Your task to perform on an android device: Turn off the flashlight Image 0: 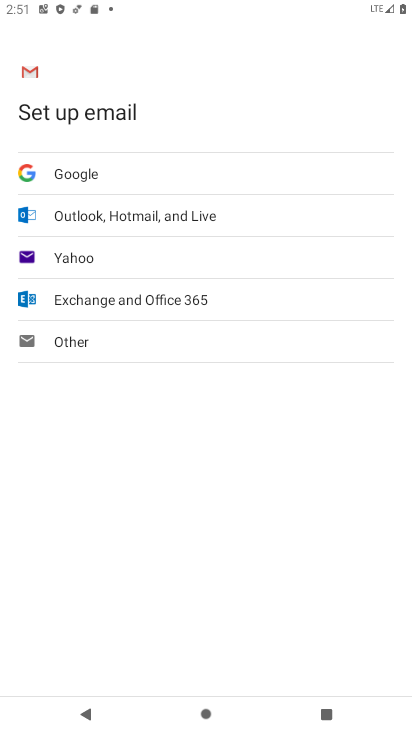
Step 0: press home button
Your task to perform on an android device: Turn off the flashlight Image 1: 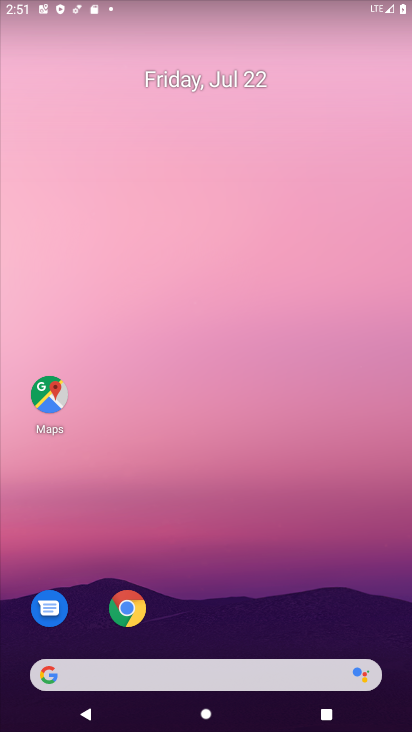
Step 1: drag from (378, 8) to (343, 215)
Your task to perform on an android device: Turn off the flashlight Image 2: 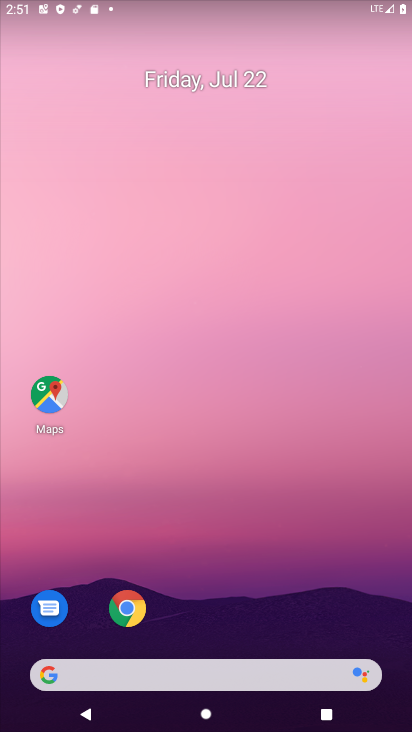
Step 2: drag from (268, 8) to (365, 507)
Your task to perform on an android device: Turn off the flashlight Image 3: 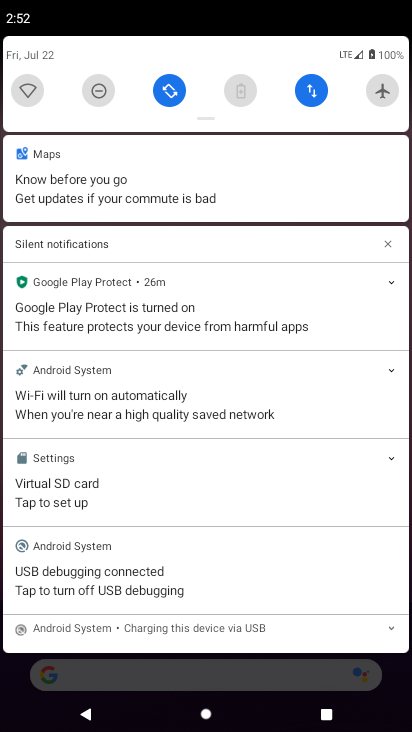
Step 3: drag from (205, 113) to (303, 542)
Your task to perform on an android device: Turn off the flashlight Image 4: 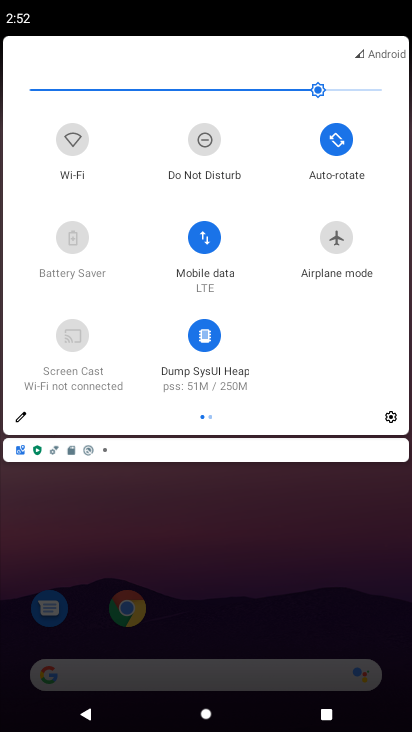
Step 4: click (25, 416)
Your task to perform on an android device: Turn off the flashlight Image 5: 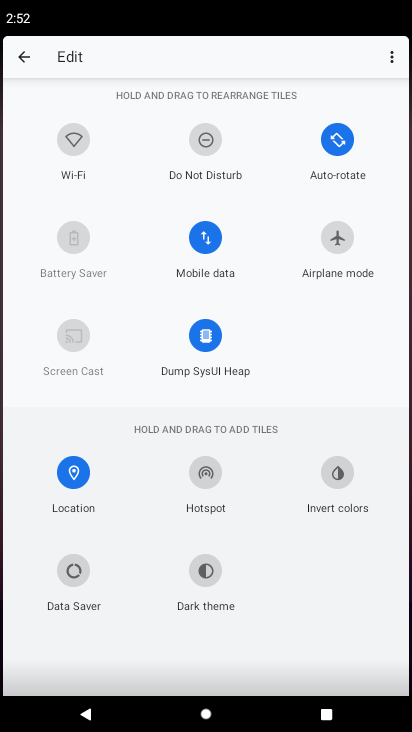
Step 5: task complete